Your task to perform on an android device: Open my contact list Image 0: 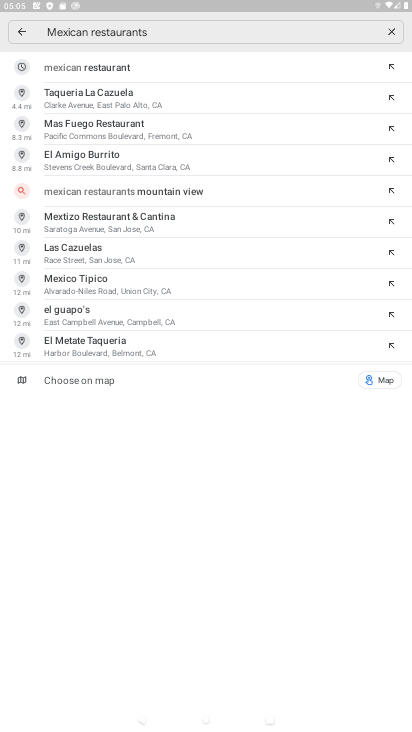
Step 0: press home button
Your task to perform on an android device: Open my contact list Image 1: 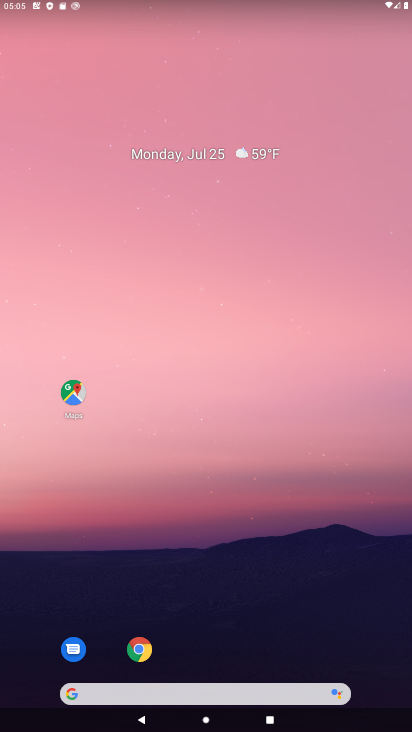
Step 1: drag from (234, 554) to (396, 0)
Your task to perform on an android device: Open my contact list Image 2: 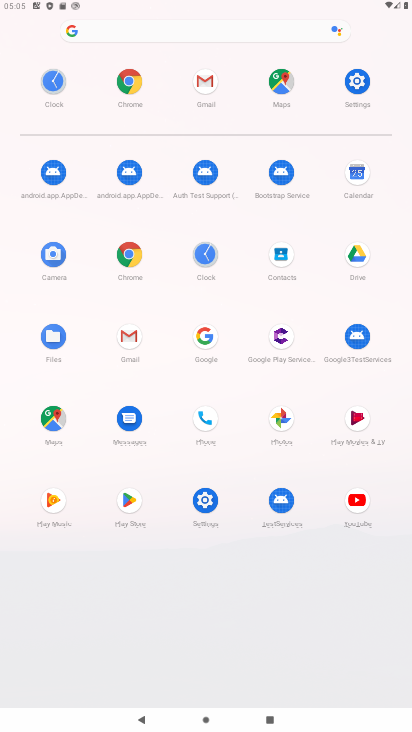
Step 2: click (206, 427)
Your task to perform on an android device: Open my contact list Image 3: 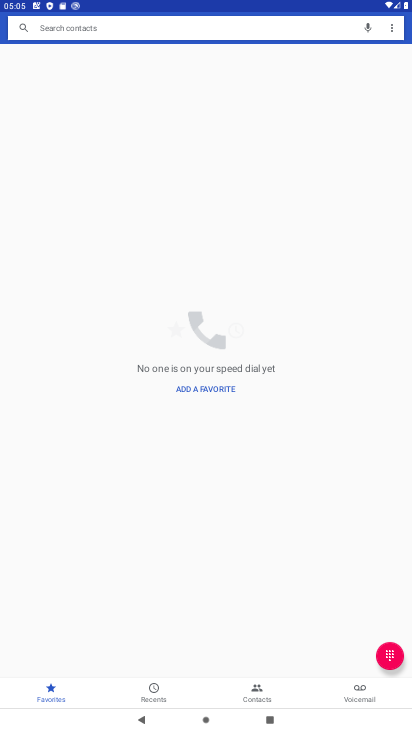
Step 3: click (260, 701)
Your task to perform on an android device: Open my contact list Image 4: 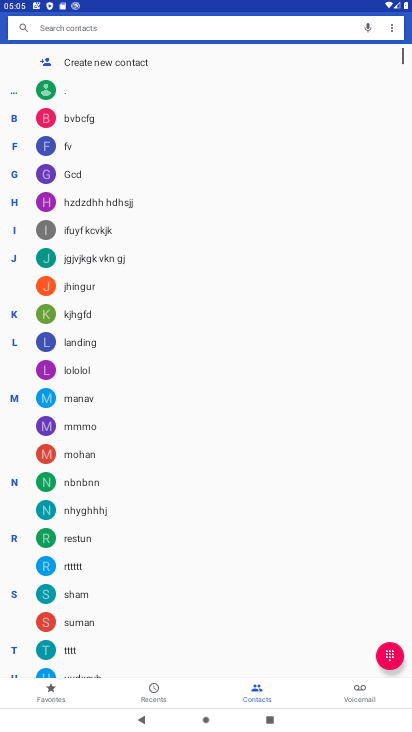
Step 4: task complete